Your task to perform on an android device: set an alarm Image 0: 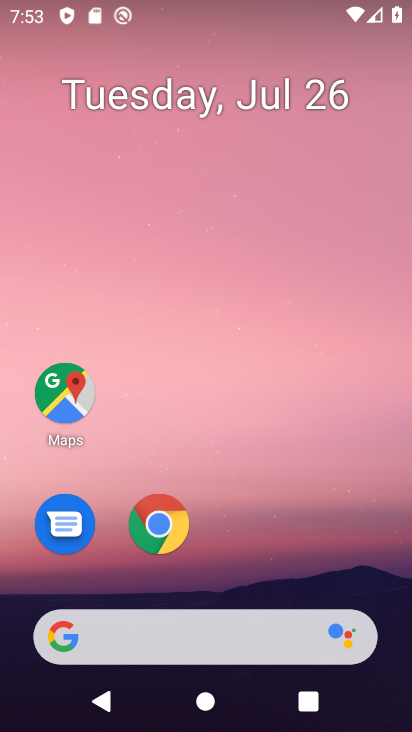
Step 0: drag from (271, 535) to (333, 122)
Your task to perform on an android device: set an alarm Image 1: 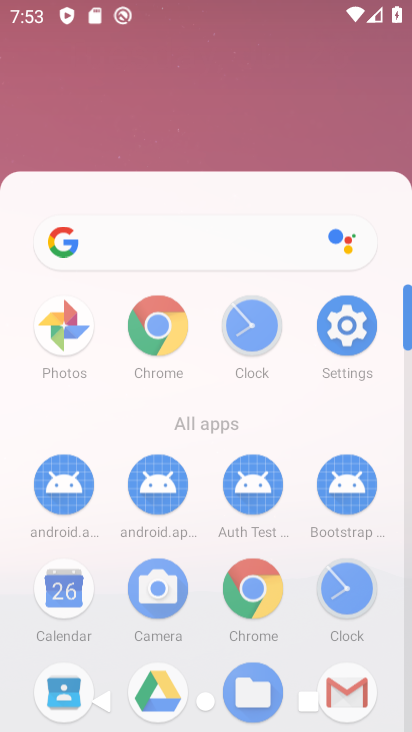
Step 1: click (344, 56)
Your task to perform on an android device: set an alarm Image 2: 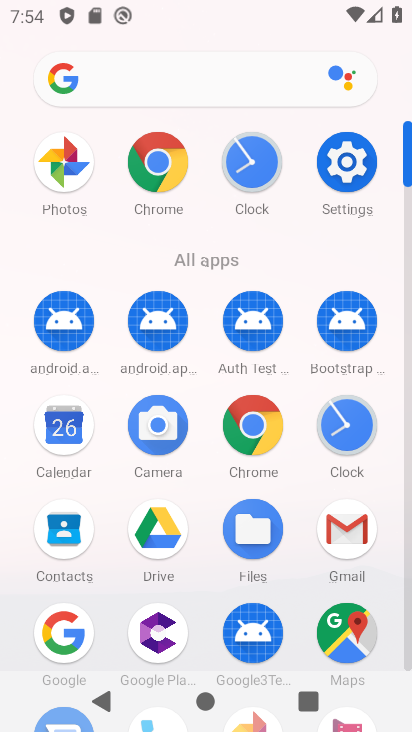
Step 2: click (262, 172)
Your task to perform on an android device: set an alarm Image 3: 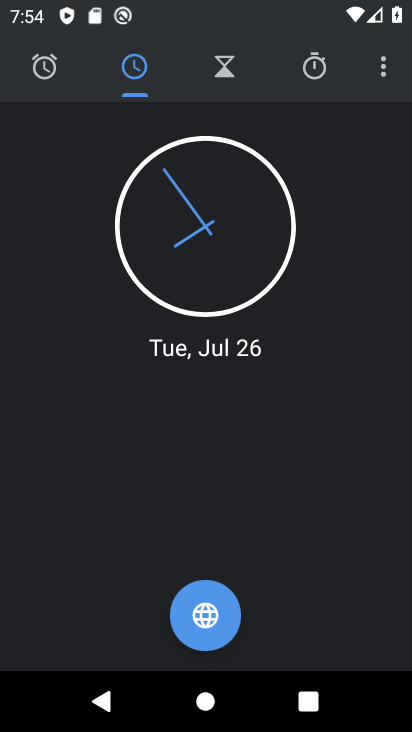
Step 3: click (43, 74)
Your task to perform on an android device: set an alarm Image 4: 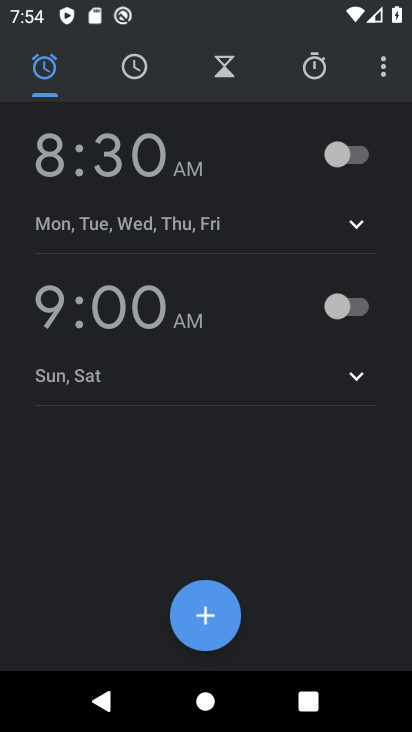
Step 4: click (206, 623)
Your task to perform on an android device: set an alarm Image 5: 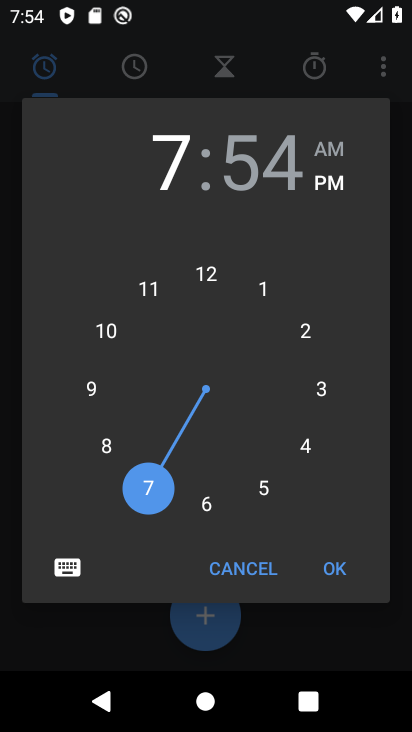
Step 5: click (272, 178)
Your task to perform on an android device: set an alarm Image 6: 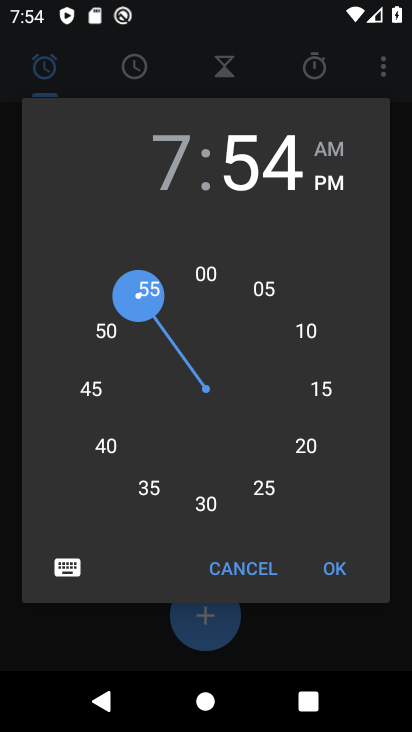
Step 6: click (208, 275)
Your task to perform on an android device: set an alarm Image 7: 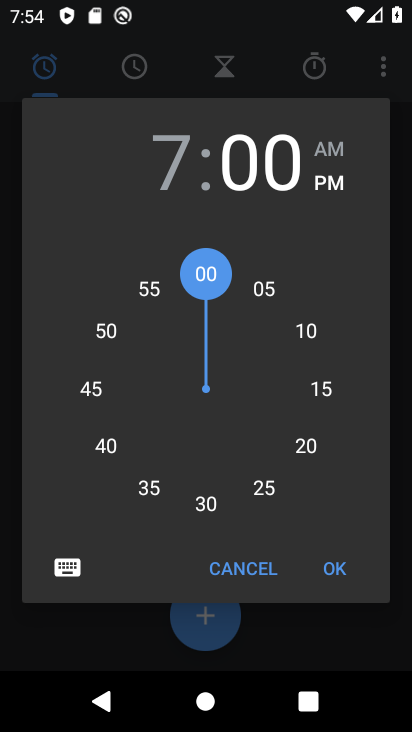
Step 7: click (337, 570)
Your task to perform on an android device: set an alarm Image 8: 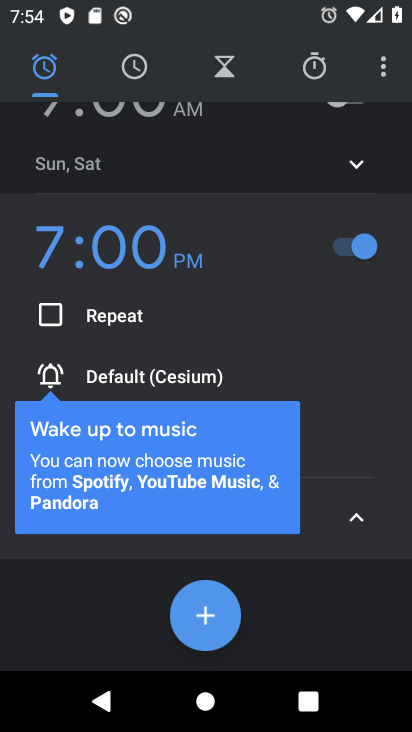
Step 8: task complete